Your task to perform on an android device: remove spam from my inbox in the gmail app Image 0: 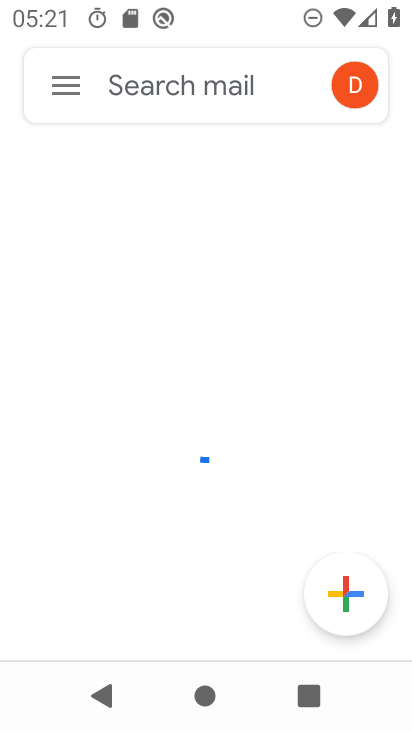
Step 0: click (59, 79)
Your task to perform on an android device: remove spam from my inbox in the gmail app Image 1: 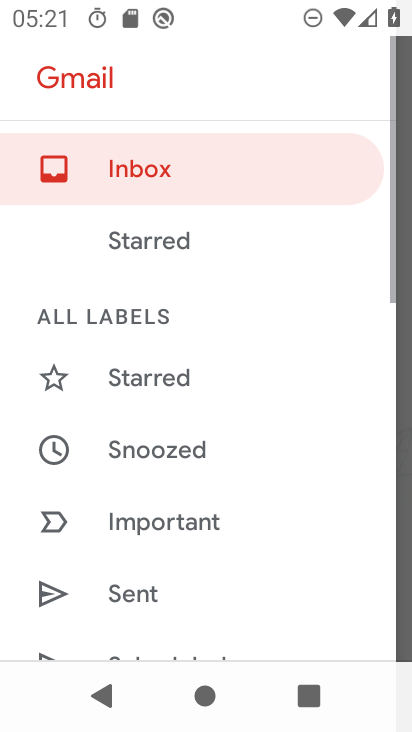
Step 1: drag from (167, 611) to (282, 59)
Your task to perform on an android device: remove spam from my inbox in the gmail app Image 2: 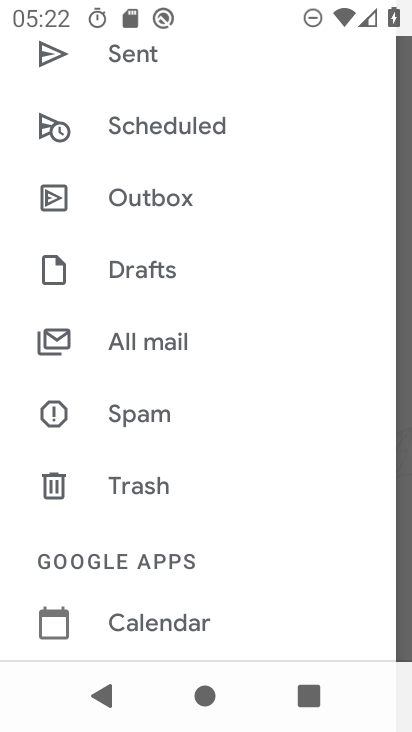
Step 2: click (143, 415)
Your task to perform on an android device: remove spam from my inbox in the gmail app Image 3: 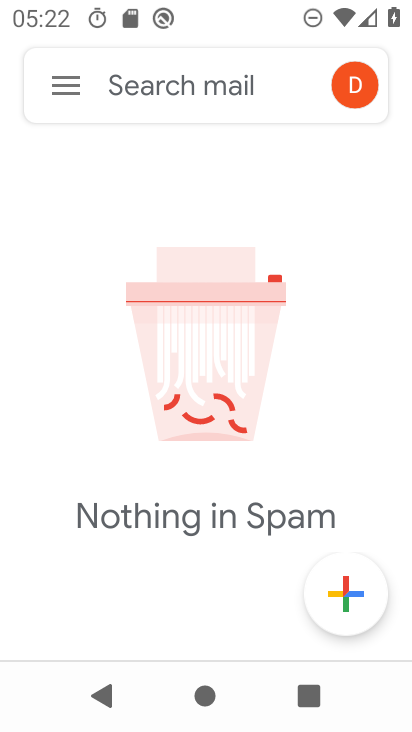
Step 3: task complete